Your task to perform on an android device: find which apps use the phone's location Image 0: 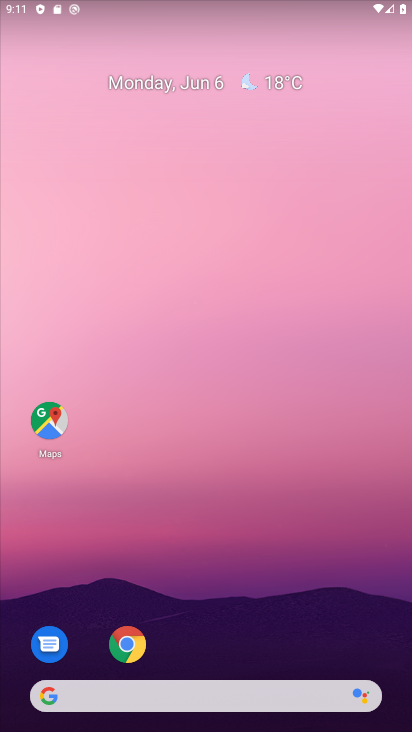
Step 0: drag from (289, 596) to (271, 150)
Your task to perform on an android device: find which apps use the phone's location Image 1: 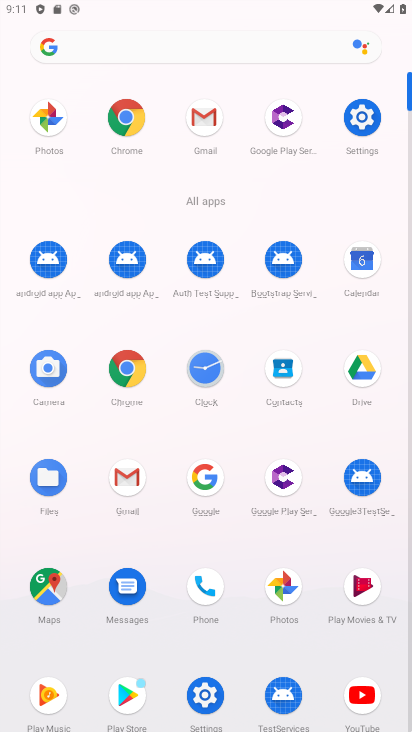
Step 1: click (205, 698)
Your task to perform on an android device: find which apps use the phone's location Image 2: 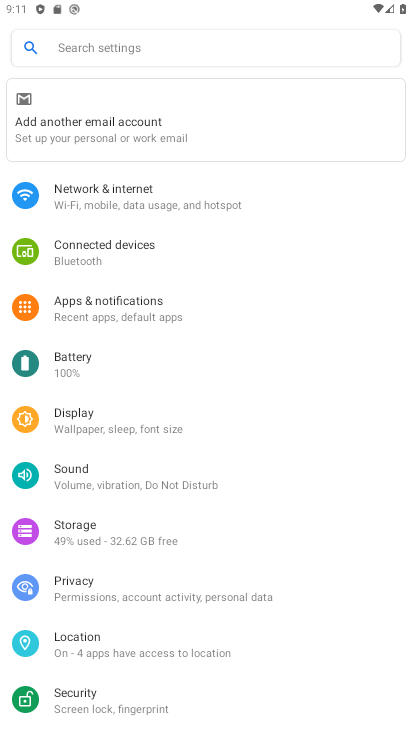
Step 2: drag from (202, 625) to (156, 273)
Your task to perform on an android device: find which apps use the phone's location Image 3: 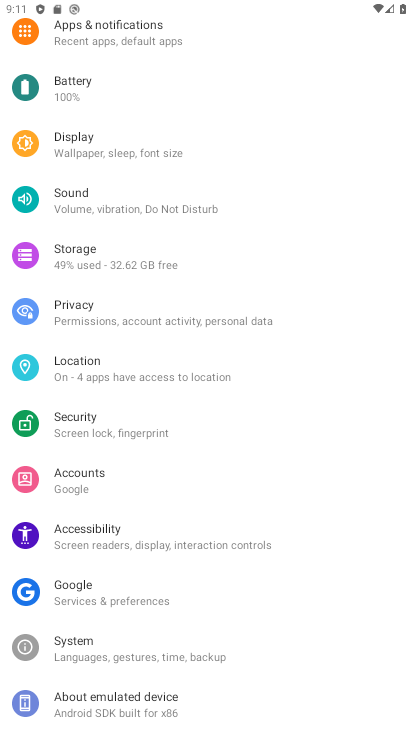
Step 3: click (131, 367)
Your task to perform on an android device: find which apps use the phone's location Image 4: 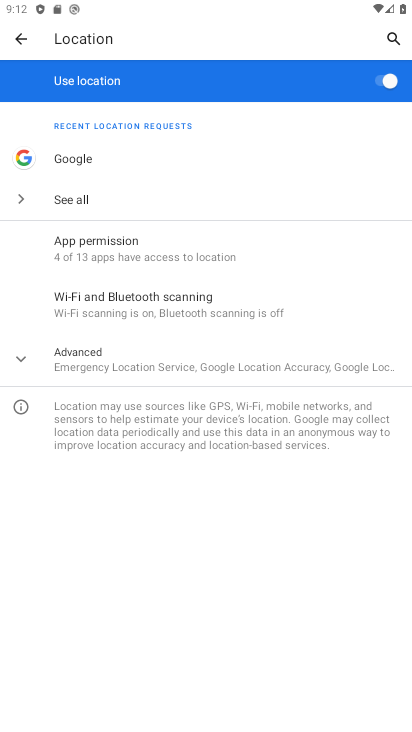
Step 4: task complete